Your task to perform on an android device: Clear all items from cart on walmart.com. Search for "acer nitro" on walmart.com, select the first entry, and add it to the cart. Image 0: 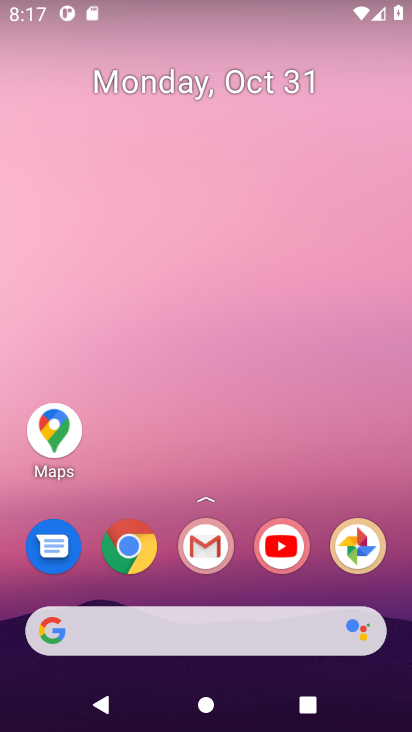
Step 0: click (129, 544)
Your task to perform on an android device: Clear all items from cart on walmart.com. Search for "acer nitro" on walmart.com, select the first entry, and add it to the cart. Image 1: 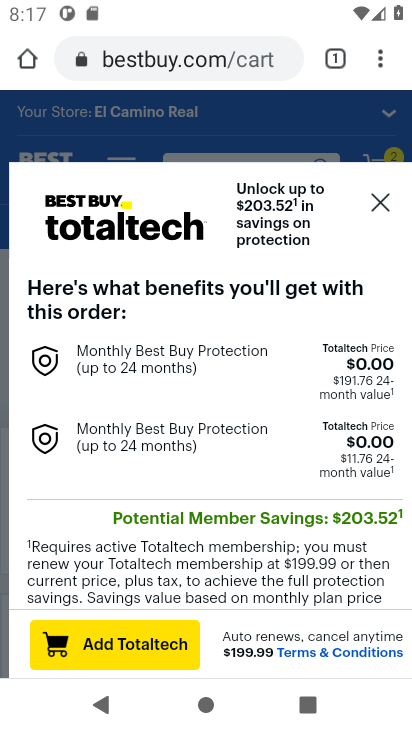
Step 1: click (211, 40)
Your task to perform on an android device: Clear all items from cart on walmart.com. Search for "acer nitro" on walmart.com, select the first entry, and add it to the cart. Image 2: 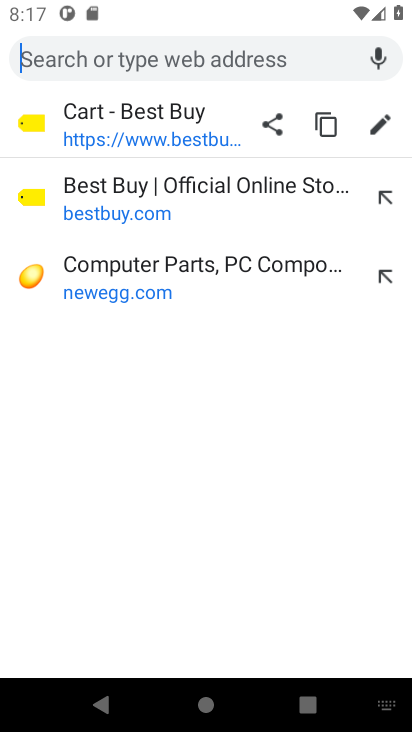
Step 2: type "walmart.com"
Your task to perform on an android device: Clear all items from cart on walmart.com. Search for "acer nitro" on walmart.com, select the first entry, and add it to the cart. Image 3: 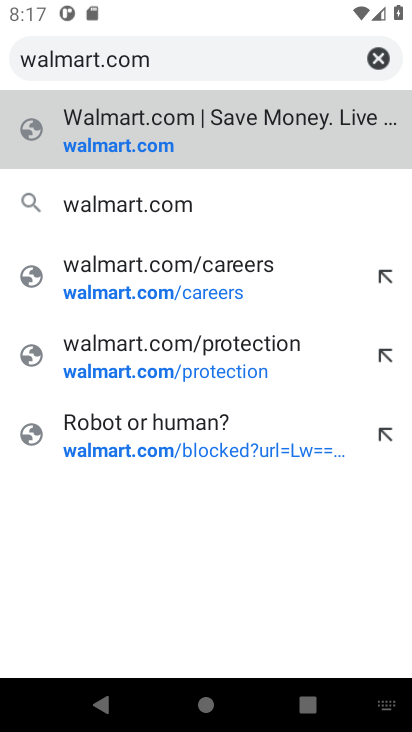
Step 3: click (115, 113)
Your task to perform on an android device: Clear all items from cart on walmart.com. Search for "acer nitro" on walmart.com, select the first entry, and add it to the cart. Image 4: 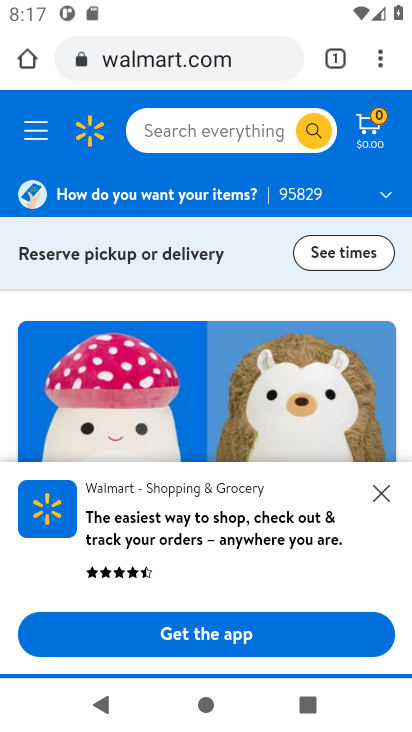
Step 4: click (379, 489)
Your task to perform on an android device: Clear all items from cart on walmart.com. Search for "acer nitro" on walmart.com, select the first entry, and add it to the cart. Image 5: 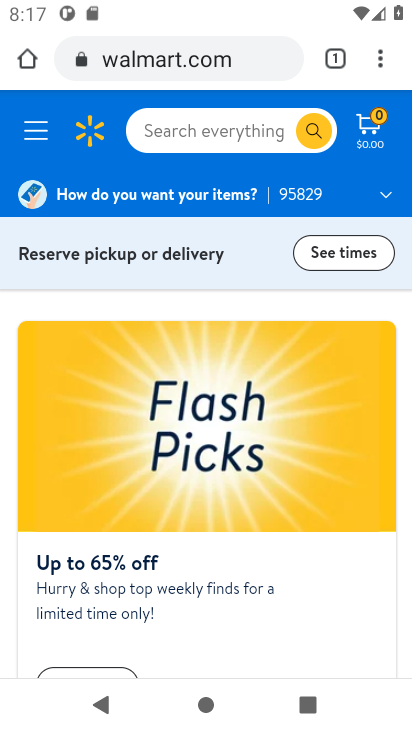
Step 5: click (200, 128)
Your task to perform on an android device: Clear all items from cart on walmart.com. Search for "acer nitro" on walmart.com, select the first entry, and add it to the cart. Image 6: 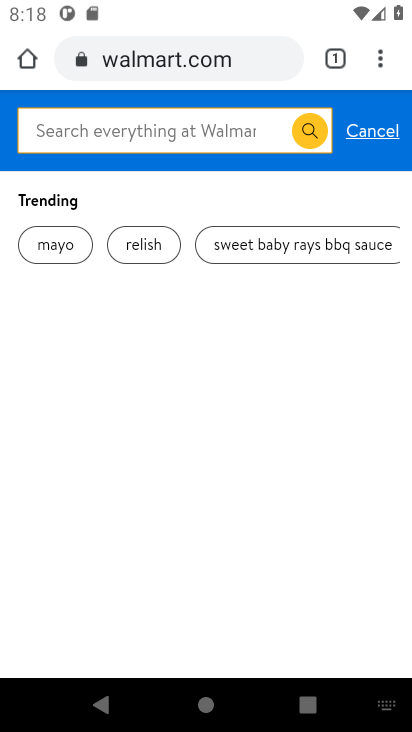
Step 6: type "acer nitro"
Your task to perform on an android device: Clear all items from cart on walmart.com. Search for "acer nitro" on walmart.com, select the first entry, and add it to the cart. Image 7: 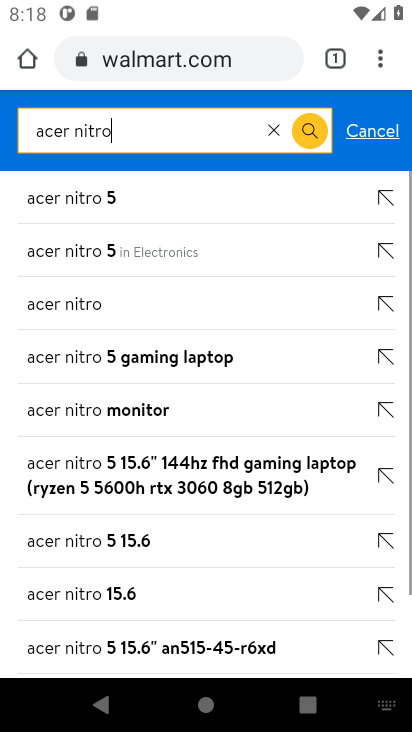
Step 7: click (70, 203)
Your task to perform on an android device: Clear all items from cart on walmart.com. Search for "acer nitro" on walmart.com, select the first entry, and add it to the cart. Image 8: 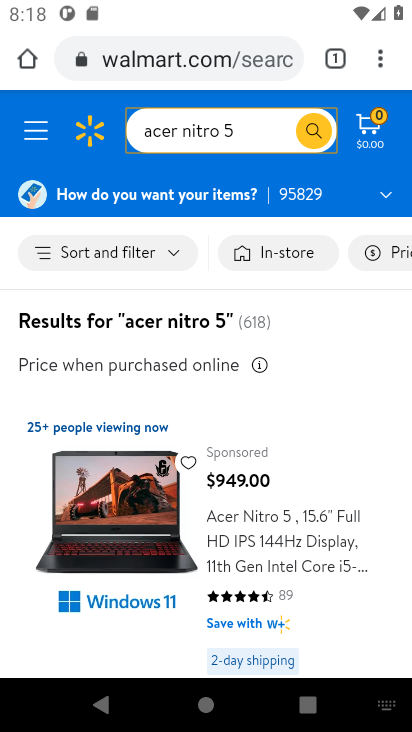
Step 8: drag from (317, 460) to (293, 236)
Your task to perform on an android device: Clear all items from cart on walmart.com. Search for "acer nitro" on walmart.com, select the first entry, and add it to the cart. Image 9: 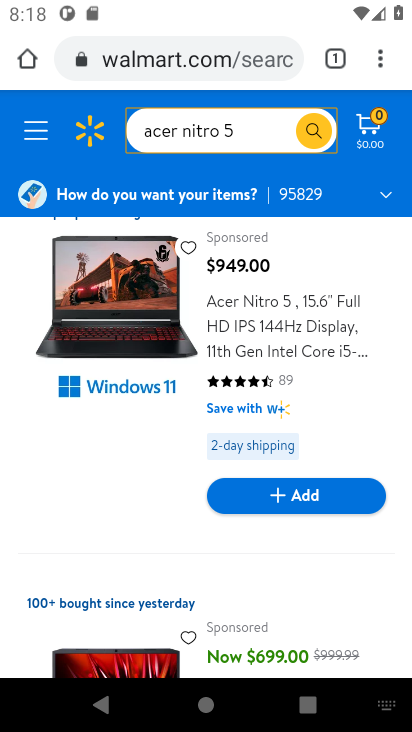
Step 9: click (274, 492)
Your task to perform on an android device: Clear all items from cart on walmart.com. Search for "acer nitro" on walmart.com, select the first entry, and add it to the cart. Image 10: 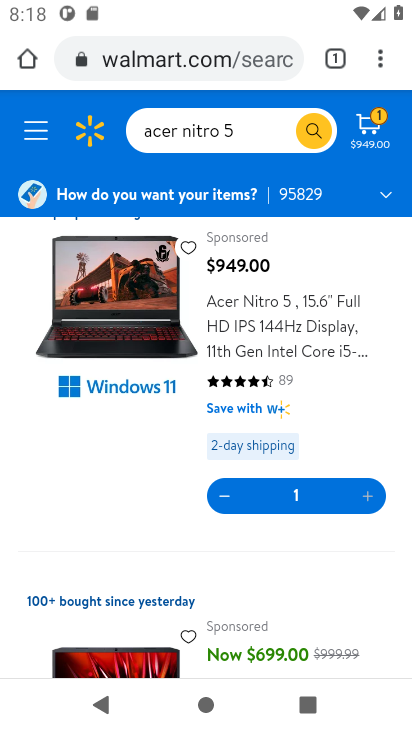
Step 10: task complete